Your task to perform on an android device: Open Google Chrome and open the bookmarks view Image 0: 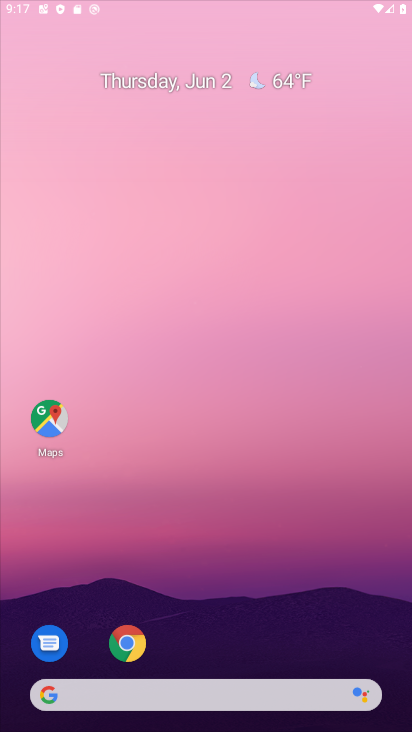
Step 0: press home button
Your task to perform on an android device: Open Google Chrome and open the bookmarks view Image 1: 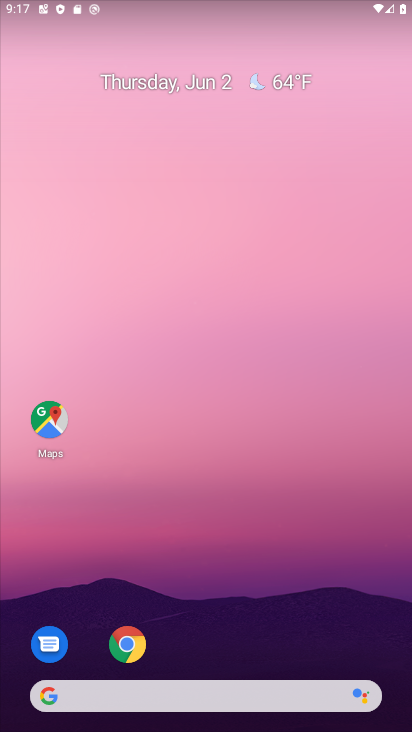
Step 1: click (119, 647)
Your task to perform on an android device: Open Google Chrome and open the bookmarks view Image 2: 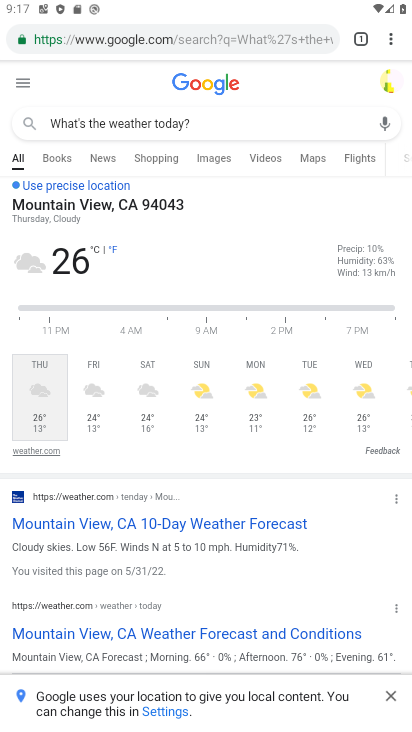
Step 2: task complete